Your task to perform on an android device: Open wifi settings Image 0: 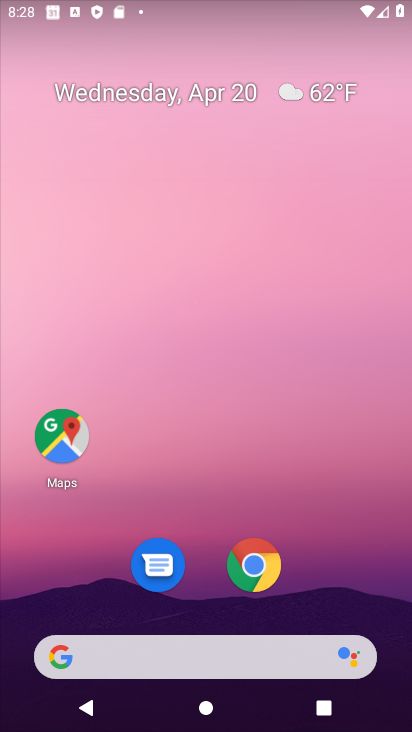
Step 0: click (274, 302)
Your task to perform on an android device: Open wifi settings Image 1: 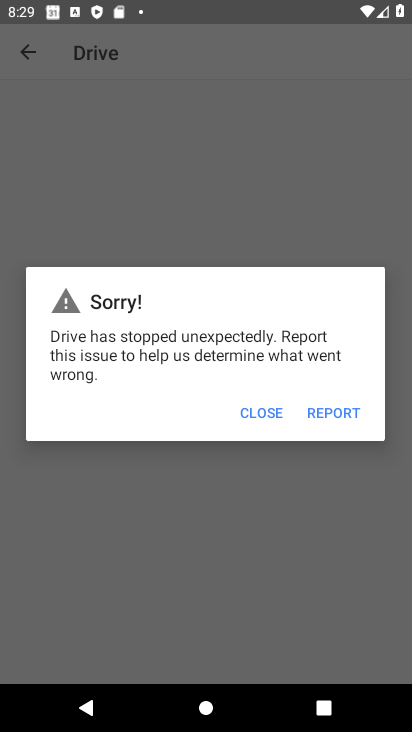
Step 1: press home button
Your task to perform on an android device: Open wifi settings Image 2: 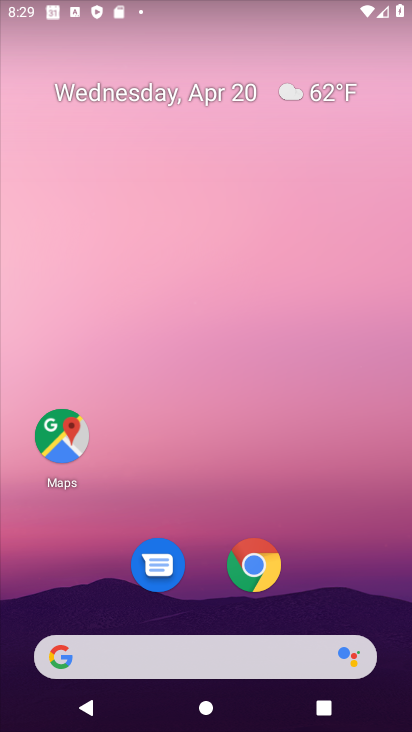
Step 2: drag from (299, 469) to (269, 11)
Your task to perform on an android device: Open wifi settings Image 3: 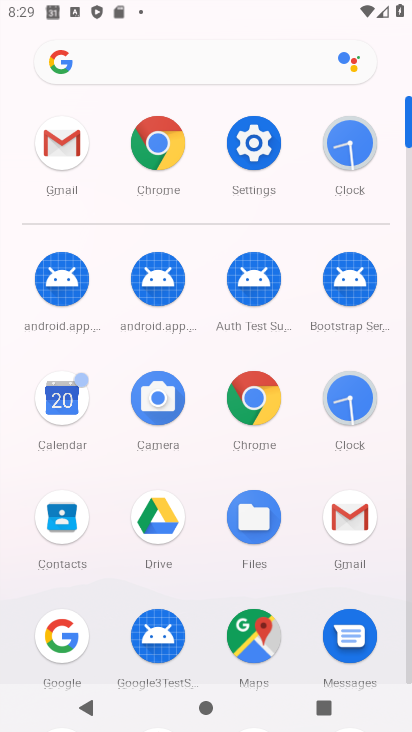
Step 3: click (245, 136)
Your task to perform on an android device: Open wifi settings Image 4: 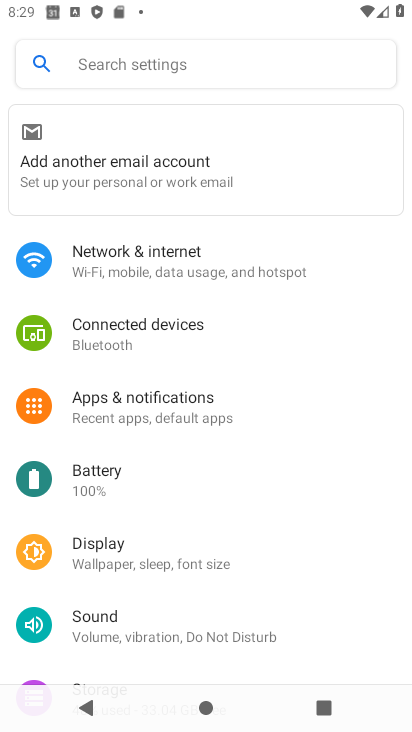
Step 4: click (163, 265)
Your task to perform on an android device: Open wifi settings Image 5: 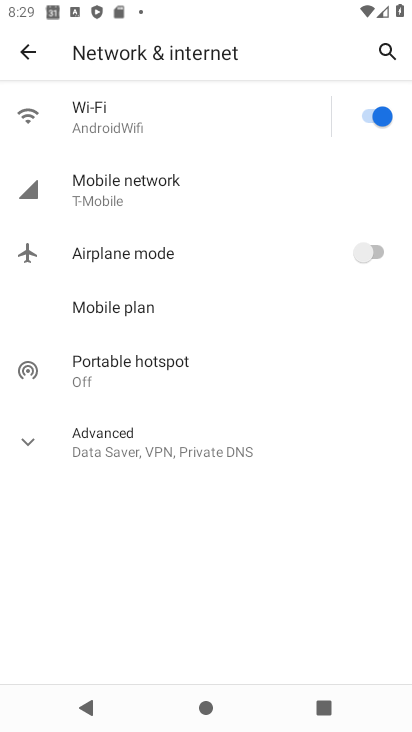
Step 5: click (40, 122)
Your task to perform on an android device: Open wifi settings Image 6: 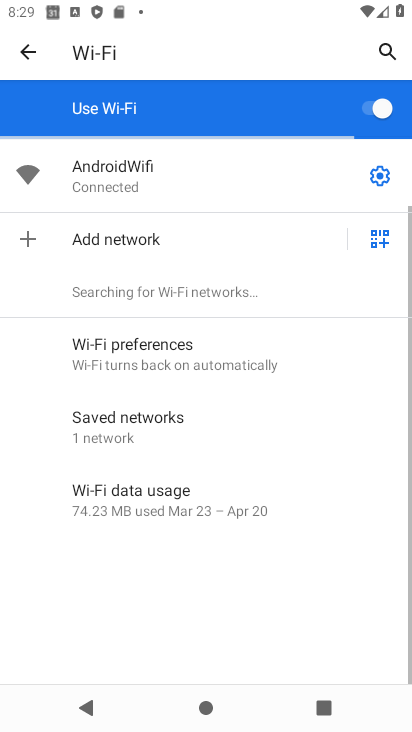
Step 6: task complete